Your task to perform on an android device: Open Chrome and go to settings Image 0: 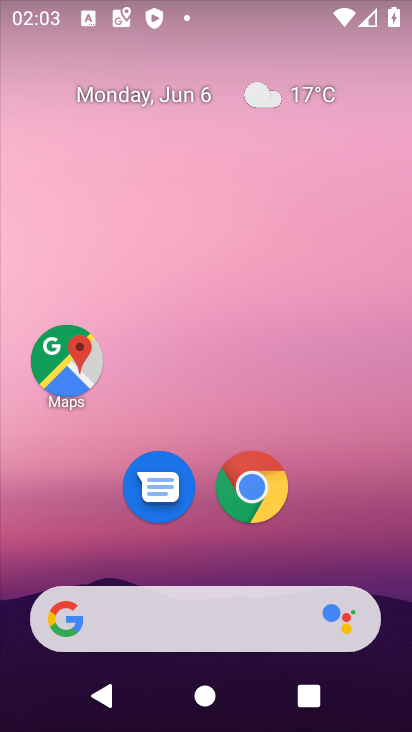
Step 0: click (252, 485)
Your task to perform on an android device: Open Chrome and go to settings Image 1: 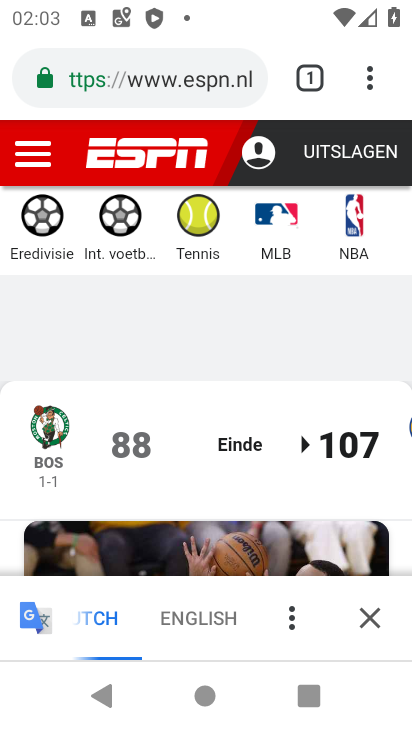
Step 1: click (366, 87)
Your task to perform on an android device: Open Chrome and go to settings Image 2: 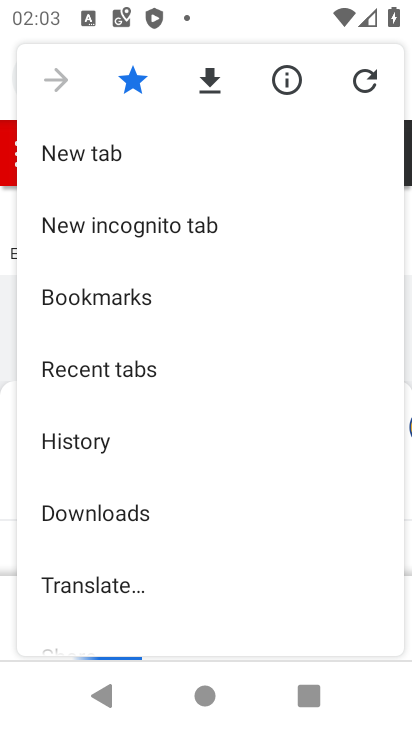
Step 2: drag from (195, 597) to (235, 132)
Your task to perform on an android device: Open Chrome and go to settings Image 3: 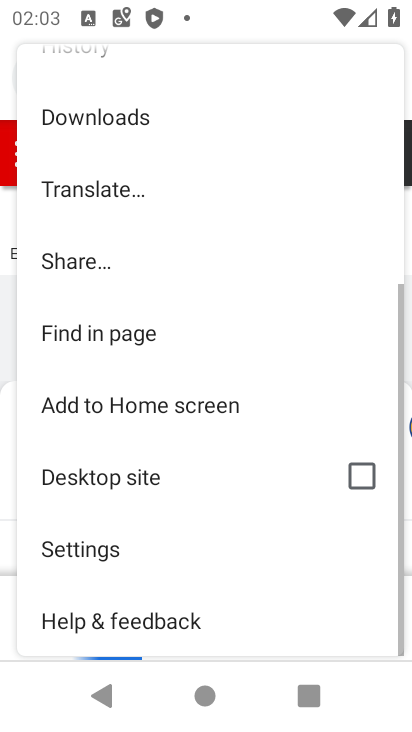
Step 3: click (99, 552)
Your task to perform on an android device: Open Chrome and go to settings Image 4: 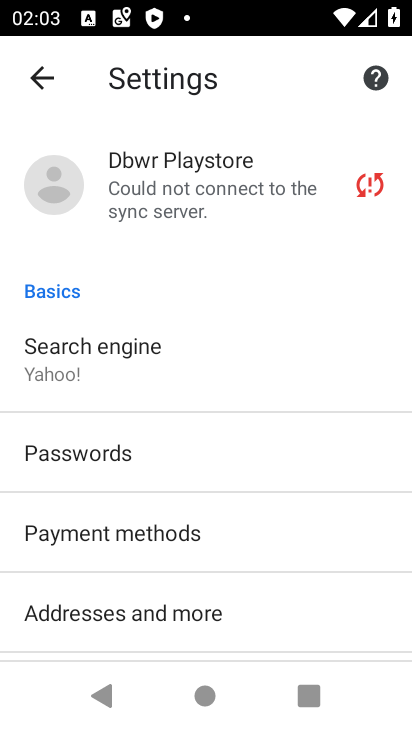
Step 4: task complete